Your task to perform on an android device: open sync settings in chrome Image 0: 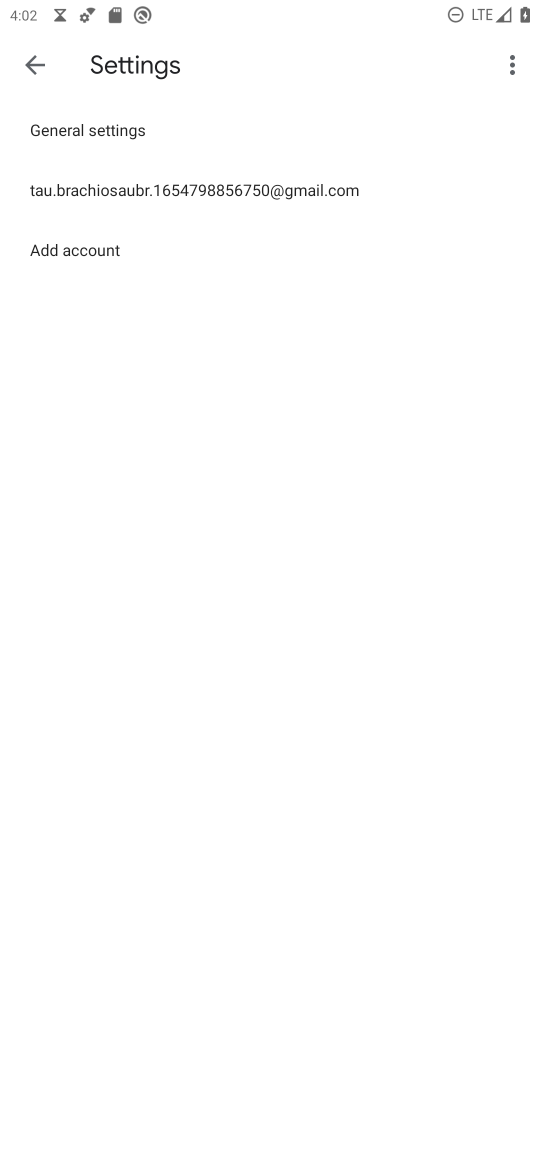
Step 0: press home button
Your task to perform on an android device: open sync settings in chrome Image 1: 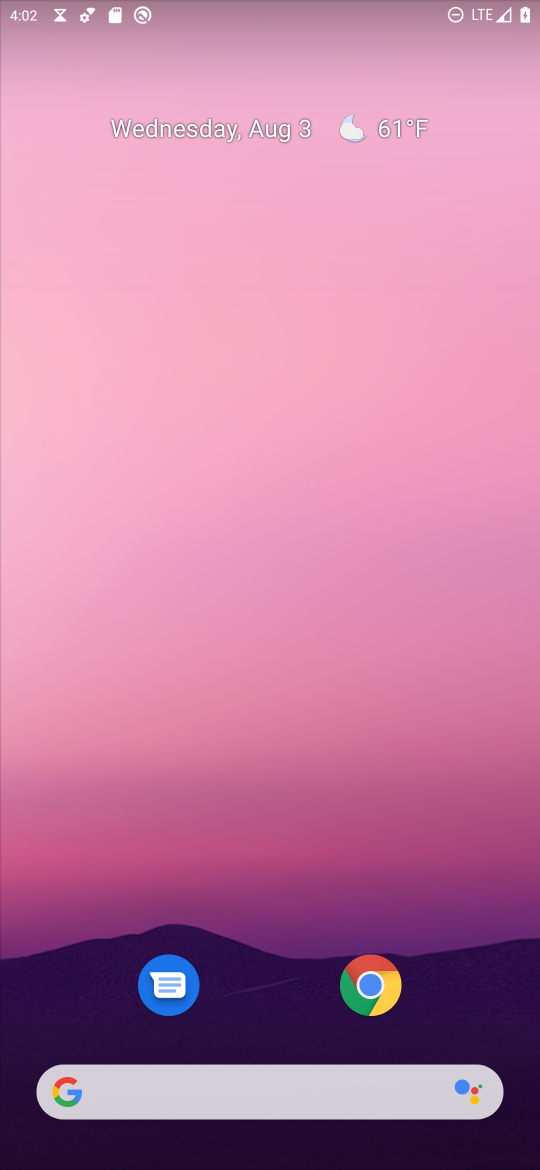
Step 1: click (374, 984)
Your task to perform on an android device: open sync settings in chrome Image 2: 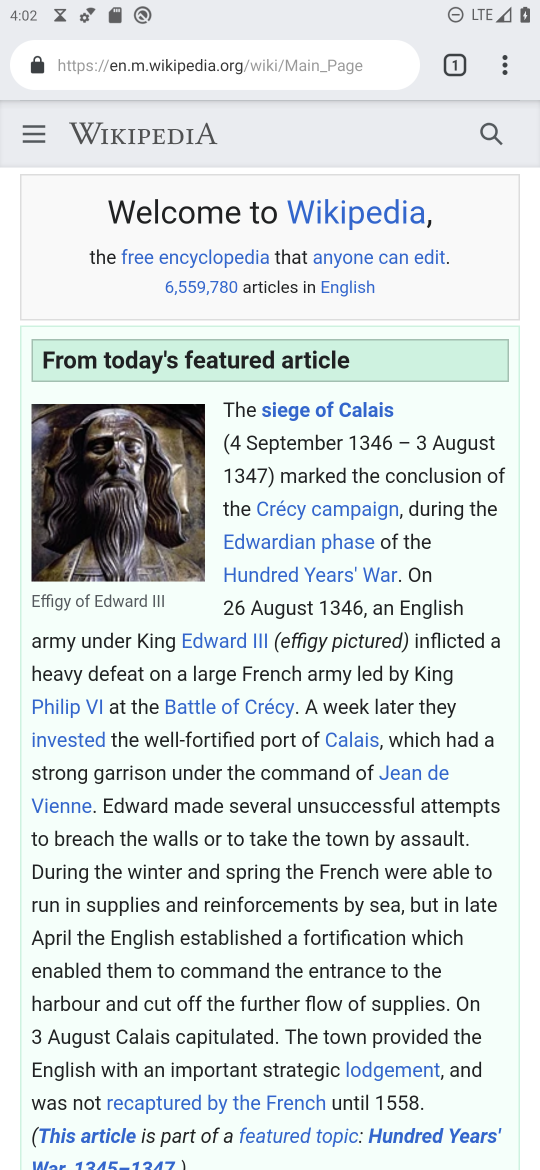
Step 2: click (502, 57)
Your task to perform on an android device: open sync settings in chrome Image 3: 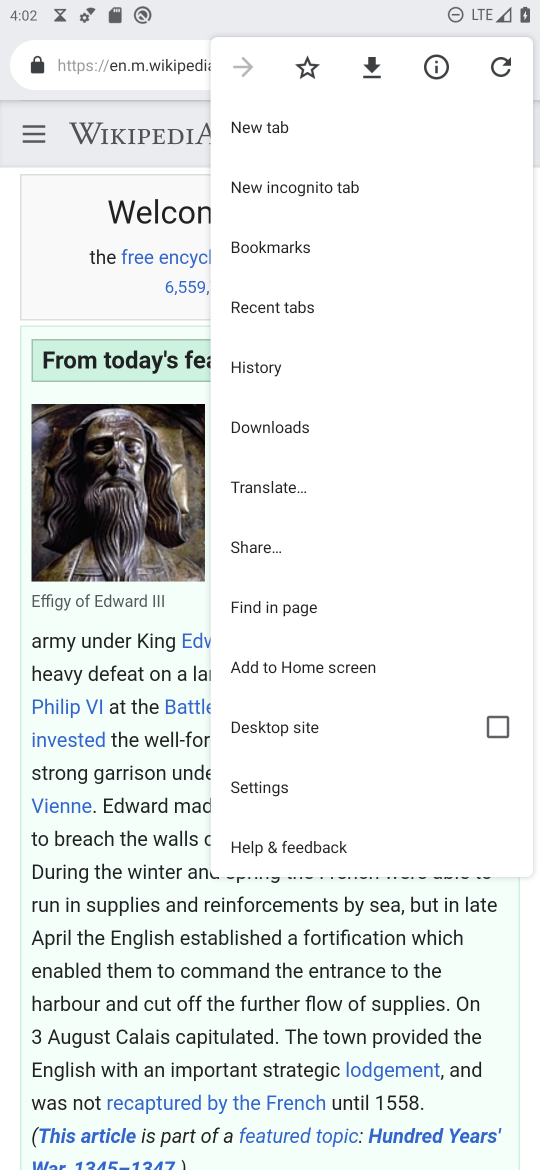
Step 3: click (291, 779)
Your task to perform on an android device: open sync settings in chrome Image 4: 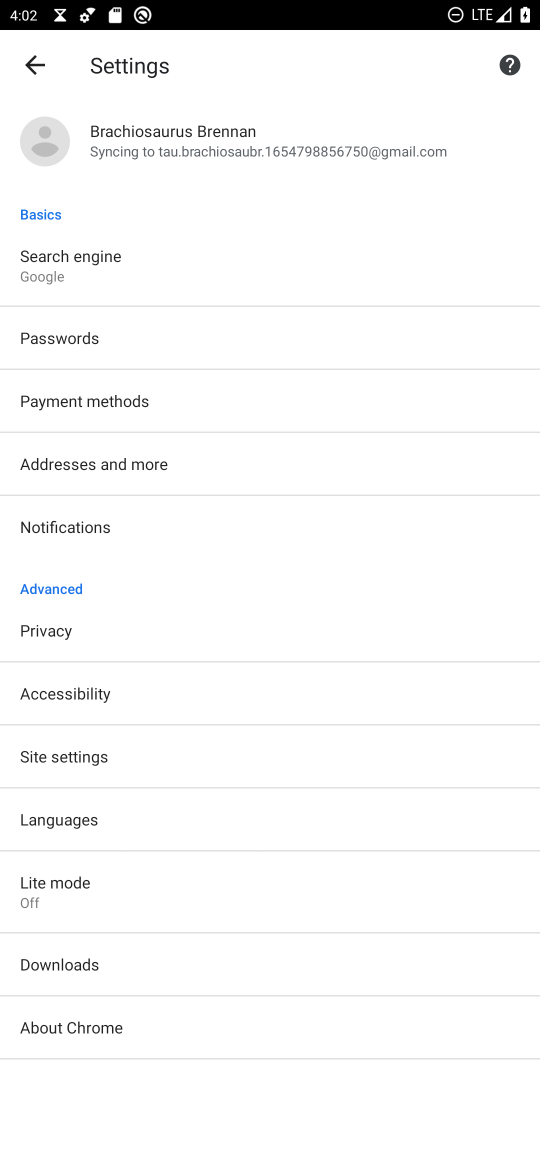
Step 4: click (202, 147)
Your task to perform on an android device: open sync settings in chrome Image 5: 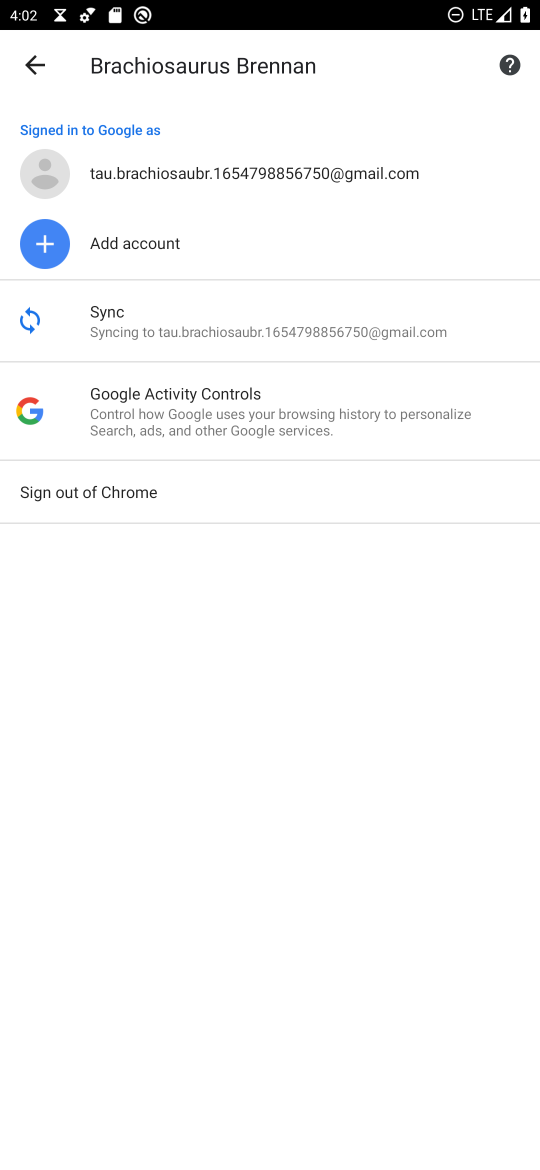
Step 5: click (224, 323)
Your task to perform on an android device: open sync settings in chrome Image 6: 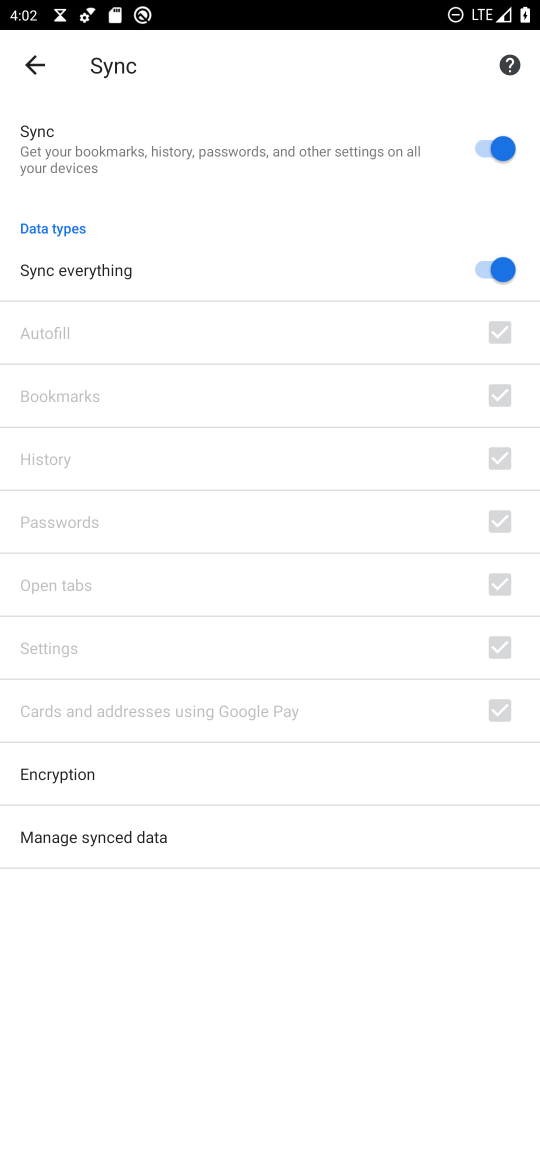
Step 6: task complete